Your task to perform on an android device: Open wifi settings Image 0: 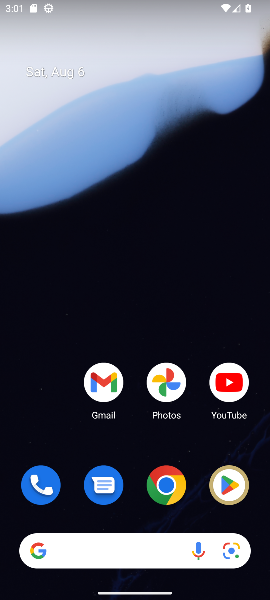
Step 0: press home button
Your task to perform on an android device: Open wifi settings Image 1: 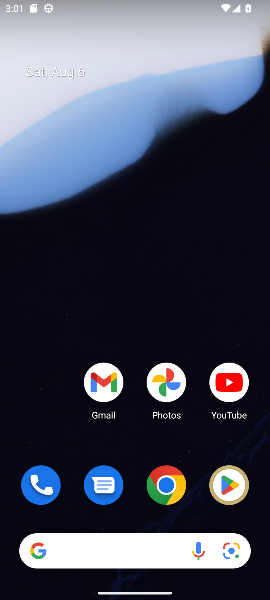
Step 1: drag from (132, 458) to (128, 0)
Your task to perform on an android device: Open wifi settings Image 2: 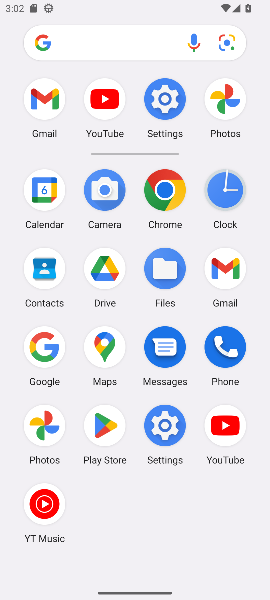
Step 2: click (161, 93)
Your task to perform on an android device: Open wifi settings Image 3: 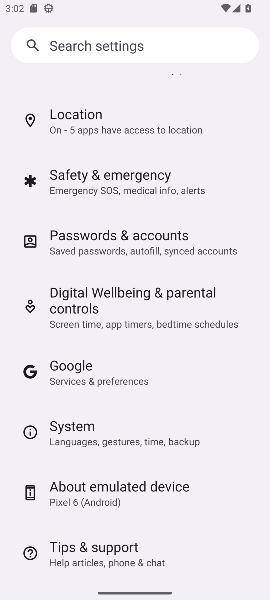
Step 3: drag from (118, 140) to (156, 593)
Your task to perform on an android device: Open wifi settings Image 4: 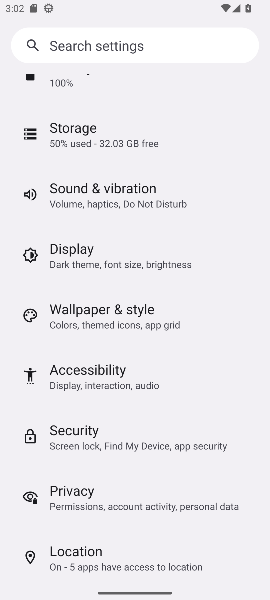
Step 4: drag from (106, 102) to (112, 542)
Your task to perform on an android device: Open wifi settings Image 5: 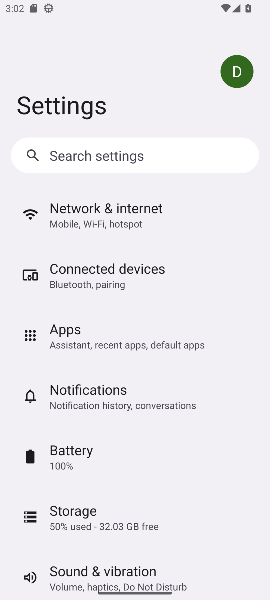
Step 5: click (145, 217)
Your task to perform on an android device: Open wifi settings Image 6: 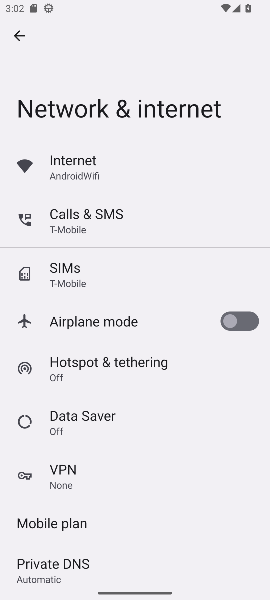
Step 6: click (111, 163)
Your task to perform on an android device: Open wifi settings Image 7: 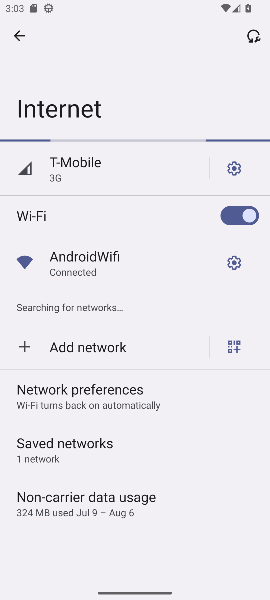
Step 7: task complete